Your task to perform on an android device: turn off picture-in-picture Image 0: 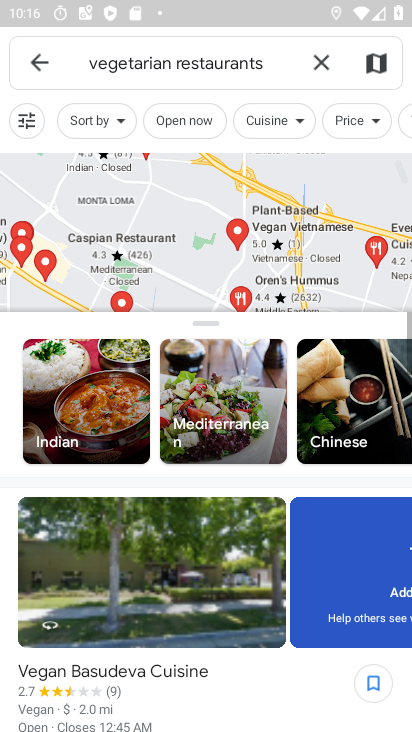
Step 0: press home button
Your task to perform on an android device: turn off picture-in-picture Image 1: 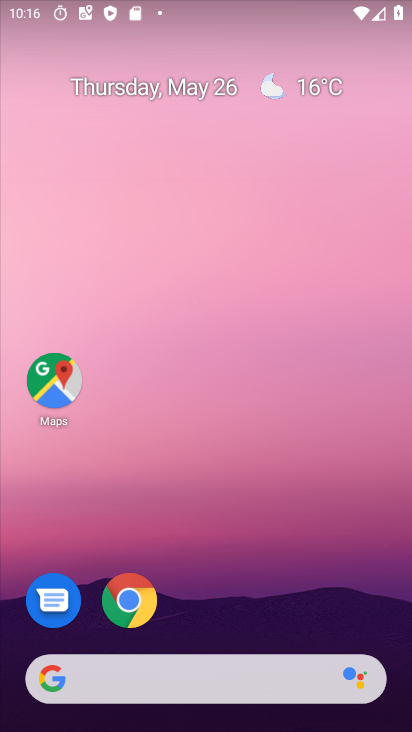
Step 1: drag from (92, 612) to (146, 608)
Your task to perform on an android device: turn off picture-in-picture Image 2: 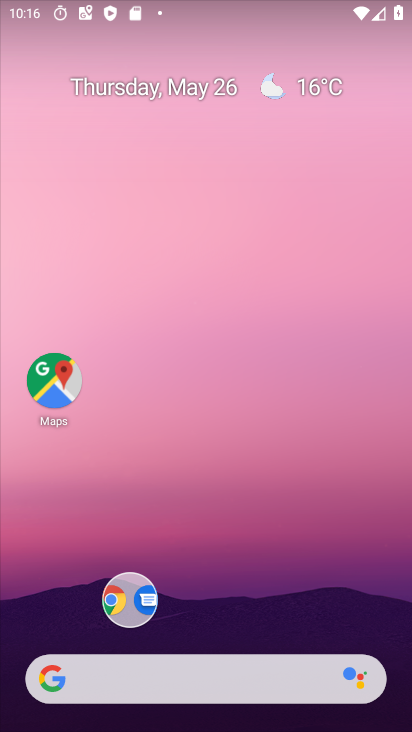
Step 2: click (146, 608)
Your task to perform on an android device: turn off picture-in-picture Image 3: 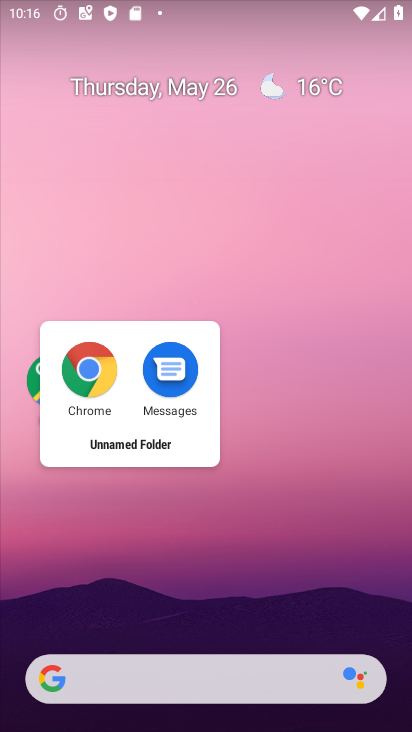
Step 3: click (88, 377)
Your task to perform on an android device: turn off picture-in-picture Image 4: 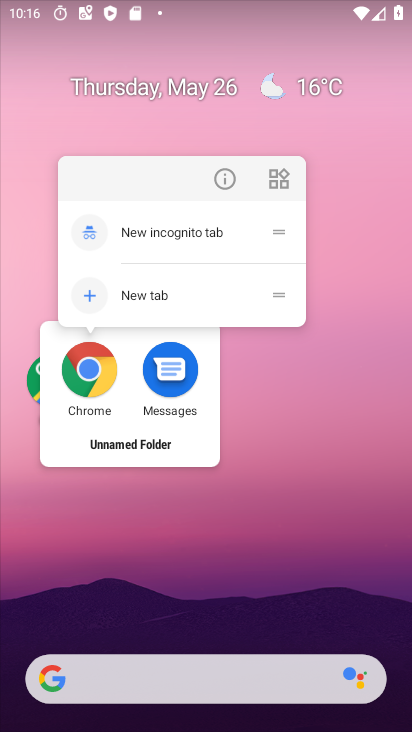
Step 4: click (218, 187)
Your task to perform on an android device: turn off picture-in-picture Image 5: 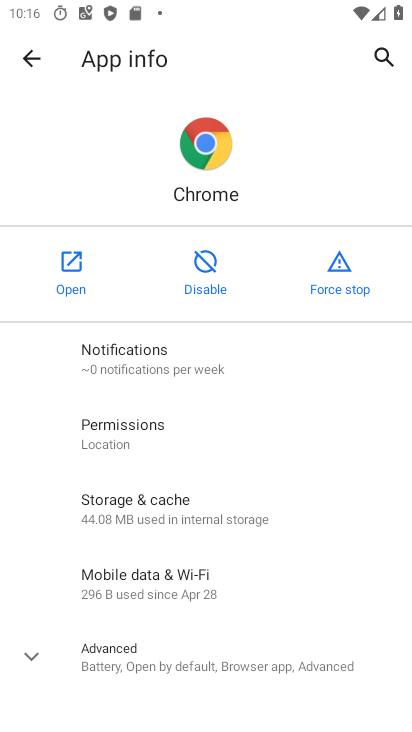
Step 5: click (147, 642)
Your task to perform on an android device: turn off picture-in-picture Image 6: 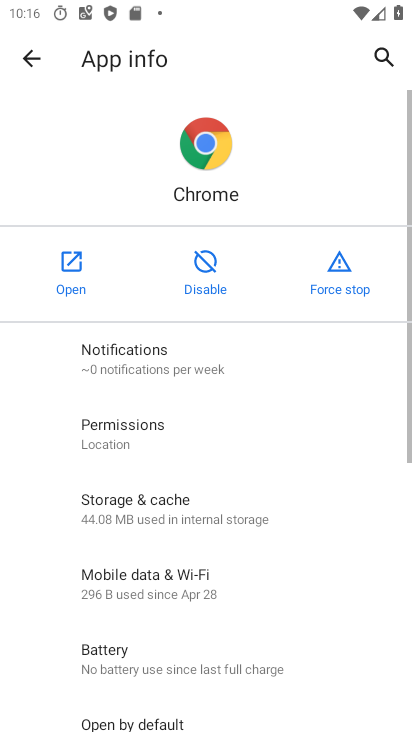
Step 6: drag from (147, 642) to (238, 0)
Your task to perform on an android device: turn off picture-in-picture Image 7: 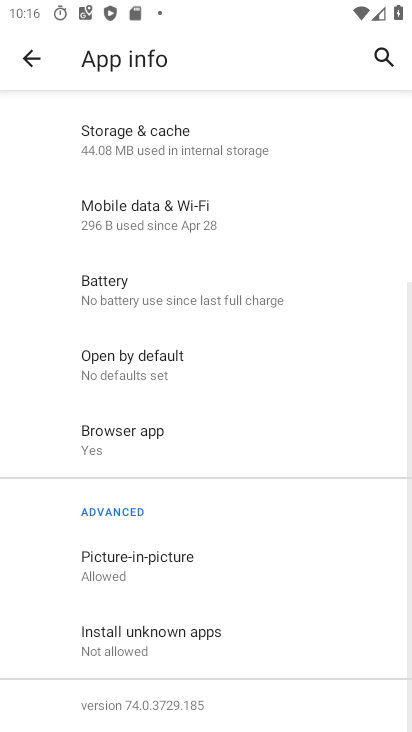
Step 7: click (193, 576)
Your task to perform on an android device: turn off picture-in-picture Image 8: 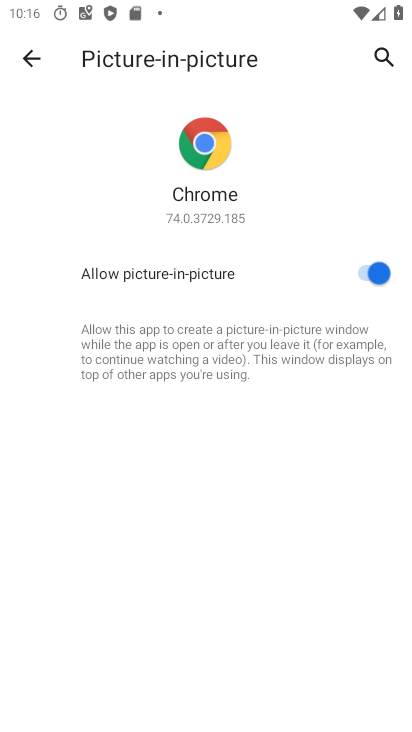
Step 8: click (365, 281)
Your task to perform on an android device: turn off picture-in-picture Image 9: 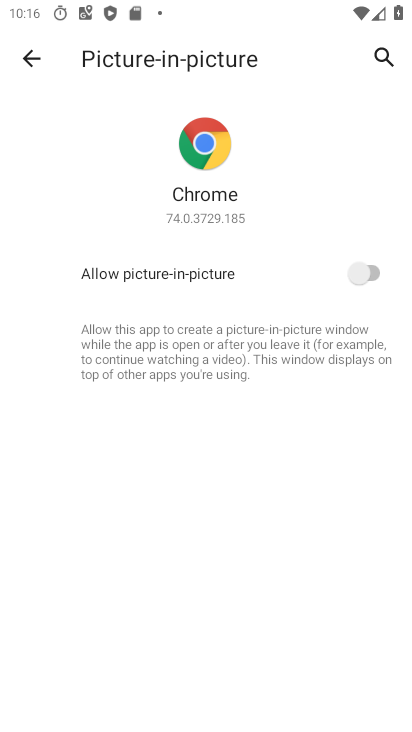
Step 9: task complete